Your task to perform on an android device: Search for seafood restaurants on Google Maps Image 0: 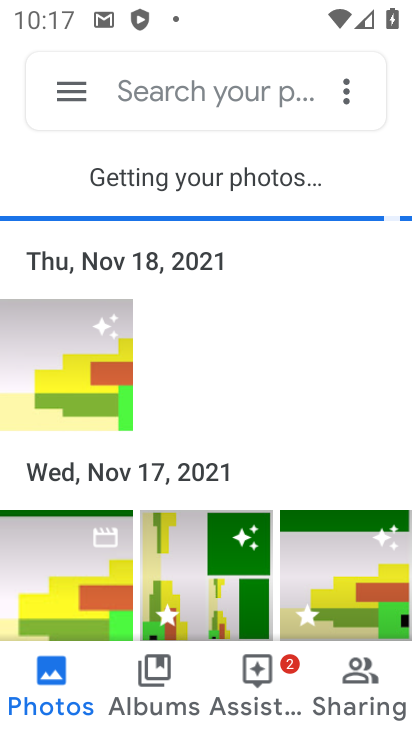
Step 0: click (214, 94)
Your task to perform on an android device: Search for seafood restaurants on Google Maps Image 1: 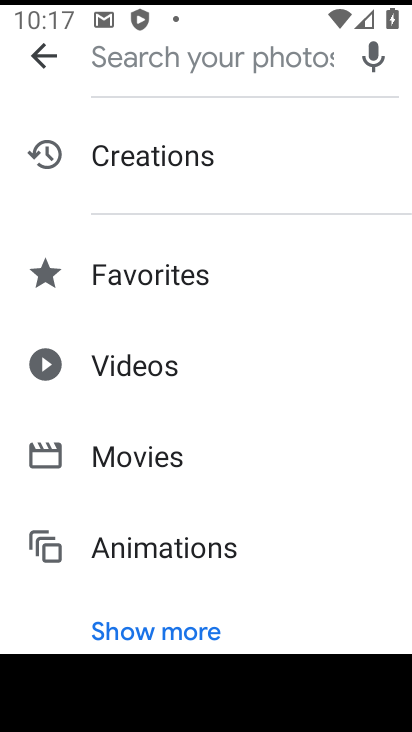
Step 1: press home button
Your task to perform on an android device: Search for seafood restaurants on Google Maps Image 2: 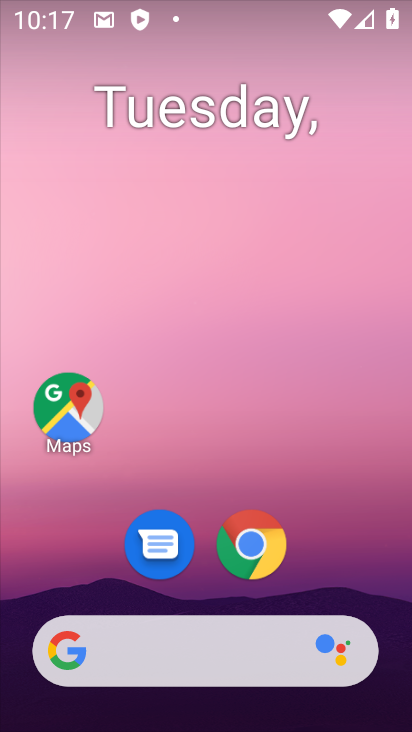
Step 2: drag from (402, 634) to (254, 117)
Your task to perform on an android device: Search for seafood restaurants on Google Maps Image 3: 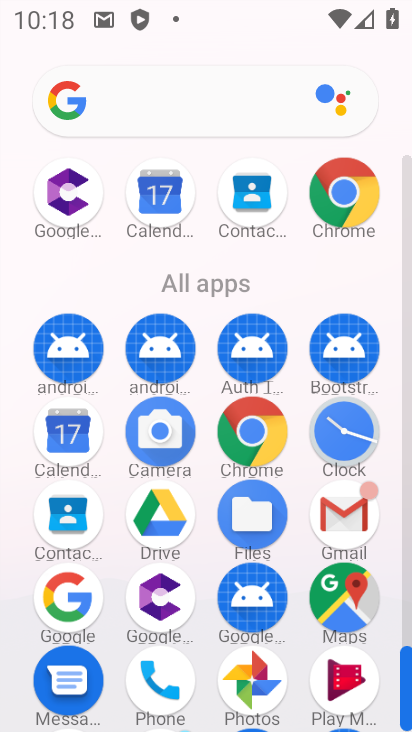
Step 3: click (358, 588)
Your task to perform on an android device: Search for seafood restaurants on Google Maps Image 4: 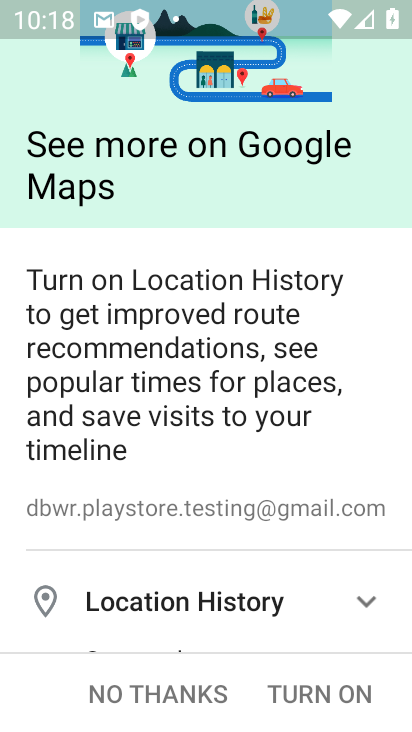
Step 4: click (164, 701)
Your task to perform on an android device: Search for seafood restaurants on Google Maps Image 5: 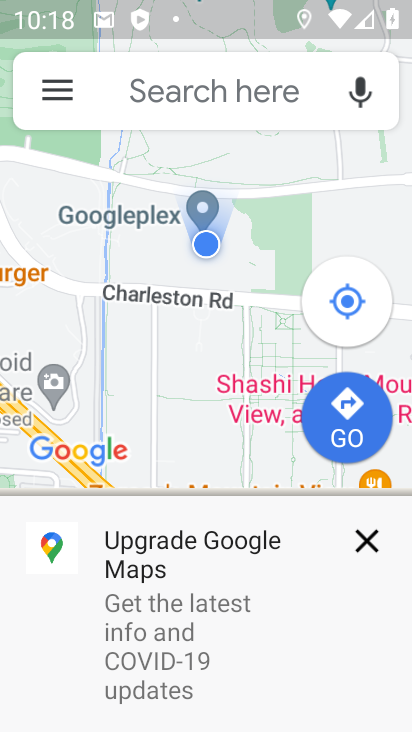
Step 5: click (219, 100)
Your task to perform on an android device: Search for seafood restaurants on Google Maps Image 6: 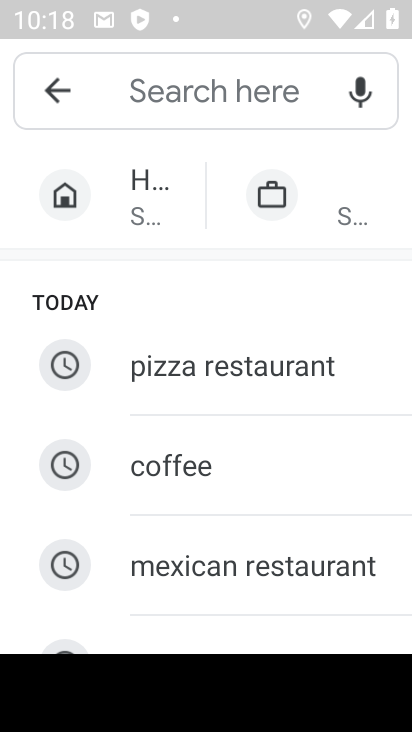
Step 6: drag from (319, 601) to (279, 216)
Your task to perform on an android device: Search for seafood restaurants on Google Maps Image 7: 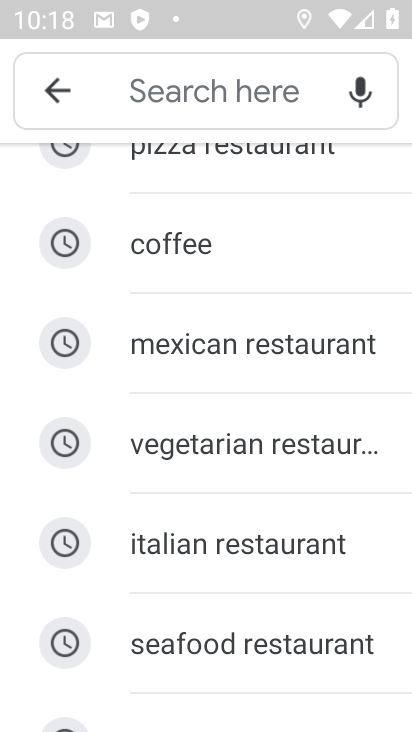
Step 7: click (337, 633)
Your task to perform on an android device: Search for seafood restaurants on Google Maps Image 8: 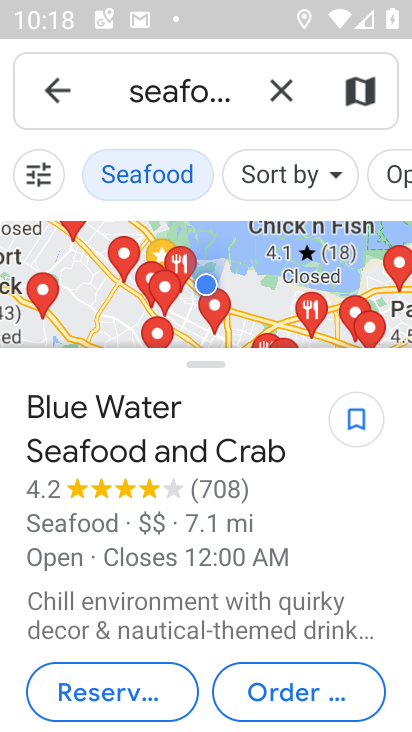
Step 8: task complete